Your task to perform on an android device: change the clock style Image 0: 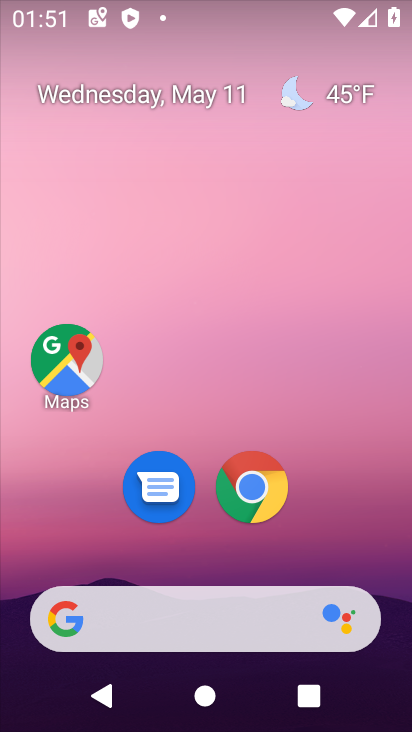
Step 0: drag from (189, 573) to (249, 124)
Your task to perform on an android device: change the clock style Image 1: 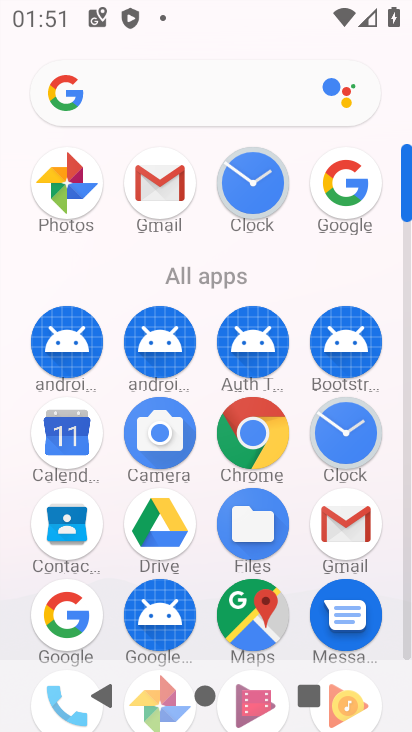
Step 1: click (358, 456)
Your task to perform on an android device: change the clock style Image 2: 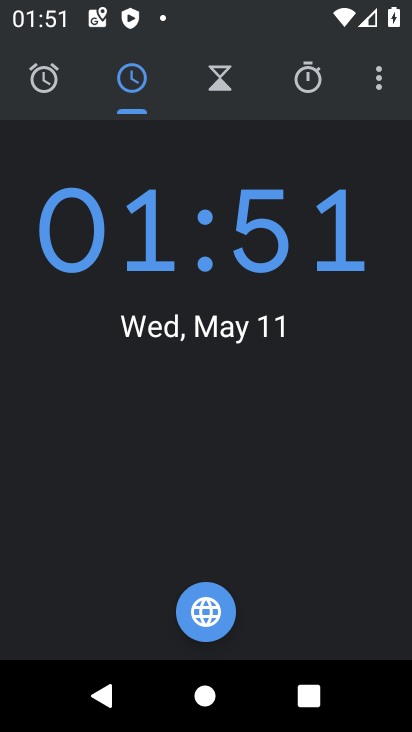
Step 2: click (375, 62)
Your task to perform on an android device: change the clock style Image 3: 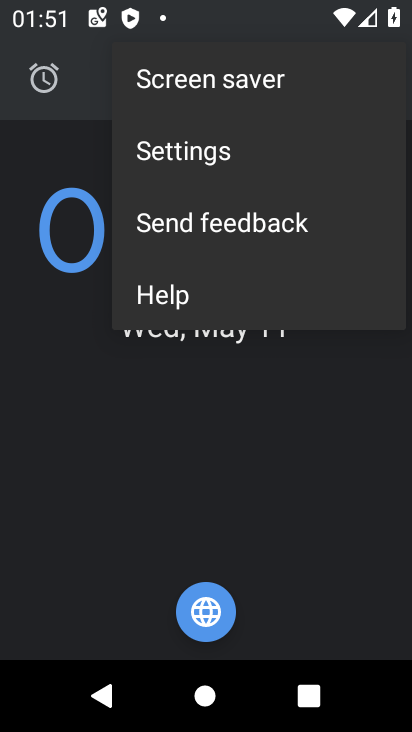
Step 3: click (244, 147)
Your task to perform on an android device: change the clock style Image 4: 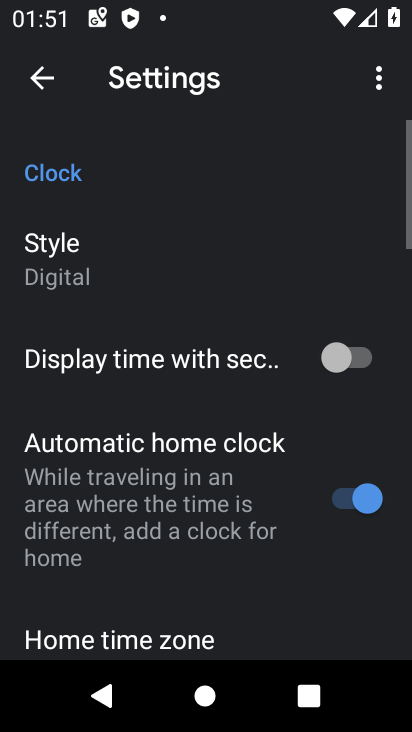
Step 4: click (190, 276)
Your task to perform on an android device: change the clock style Image 5: 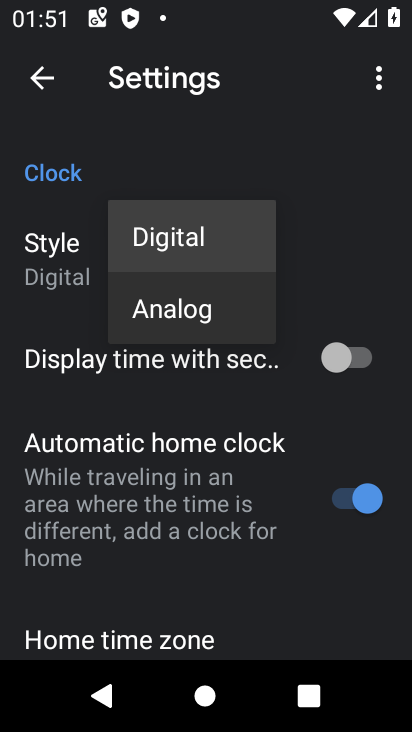
Step 5: click (176, 314)
Your task to perform on an android device: change the clock style Image 6: 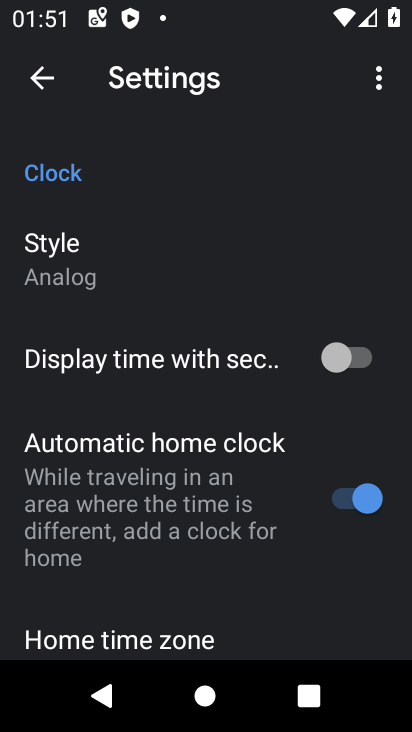
Step 6: task complete